Your task to perform on an android device: Open Chrome and go to the settings page Image 0: 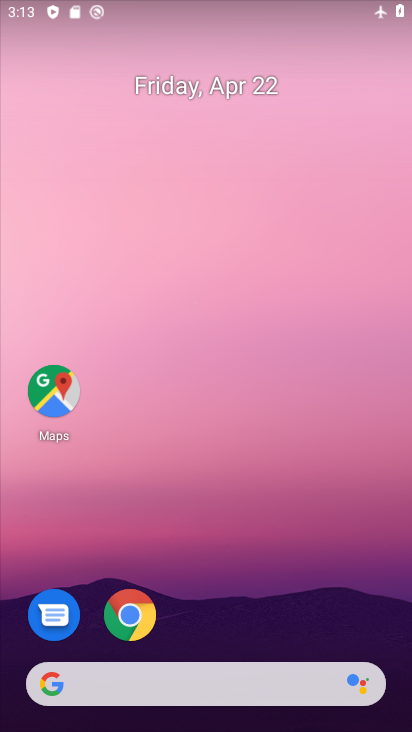
Step 0: click (131, 616)
Your task to perform on an android device: Open Chrome and go to the settings page Image 1: 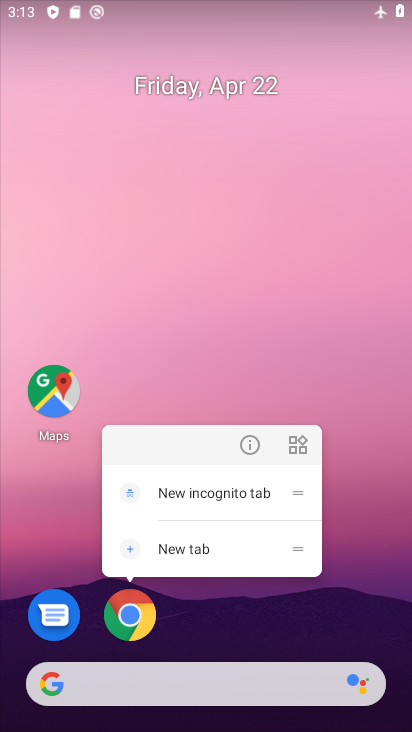
Step 1: click (131, 616)
Your task to perform on an android device: Open Chrome and go to the settings page Image 2: 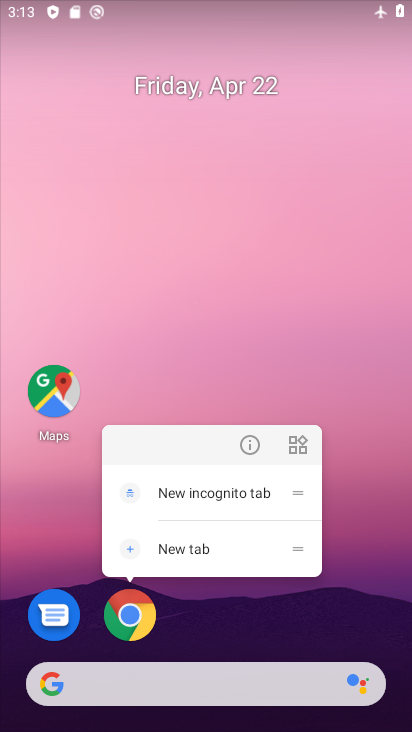
Step 2: click (131, 616)
Your task to perform on an android device: Open Chrome and go to the settings page Image 3: 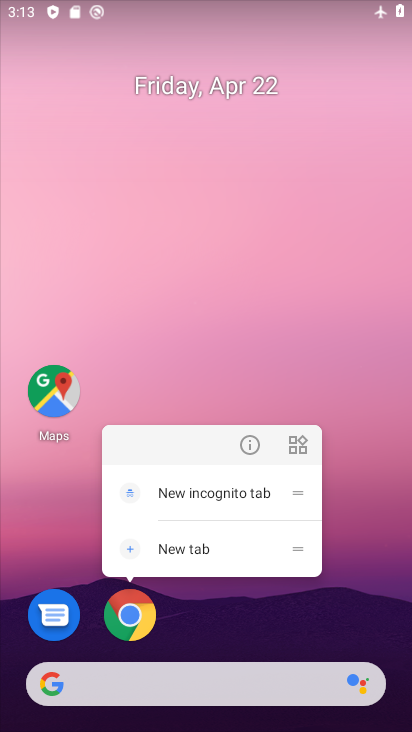
Step 3: click (131, 616)
Your task to perform on an android device: Open Chrome and go to the settings page Image 4: 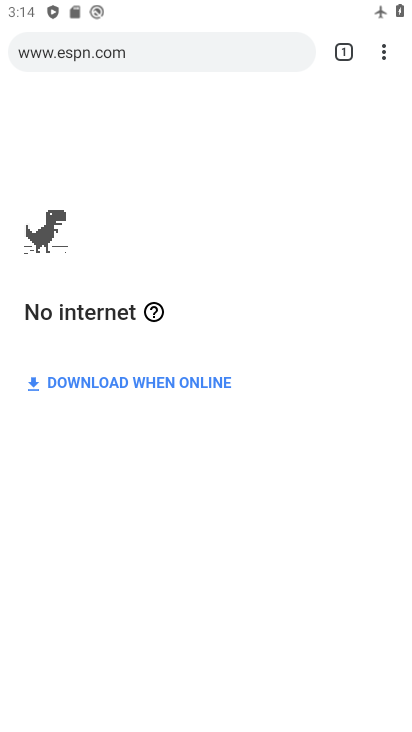
Step 4: click (385, 48)
Your task to perform on an android device: Open Chrome and go to the settings page Image 5: 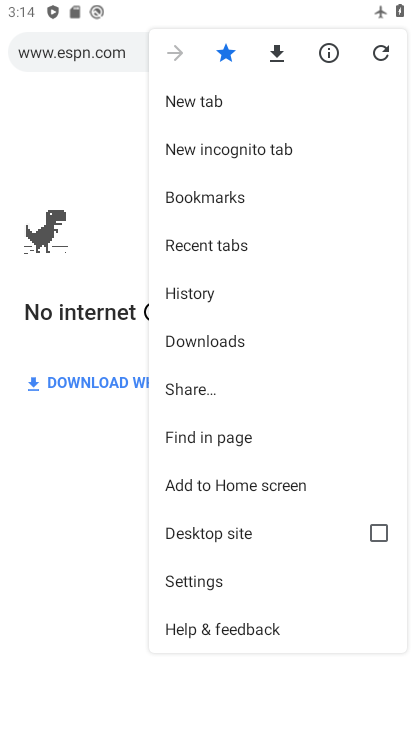
Step 5: click (191, 578)
Your task to perform on an android device: Open Chrome and go to the settings page Image 6: 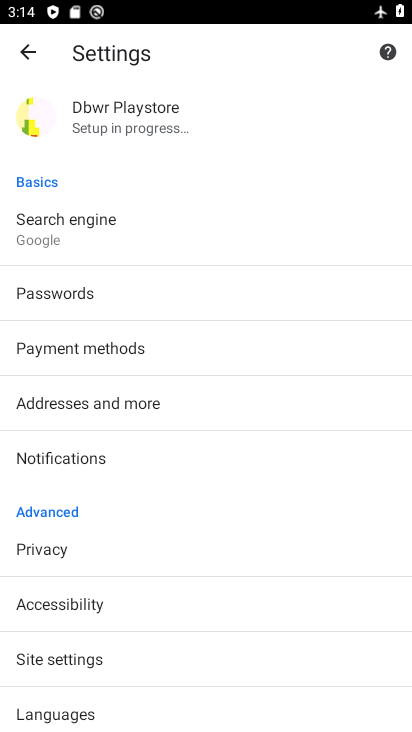
Step 6: task complete